Your task to perform on an android device: Go to wifi settings Image 0: 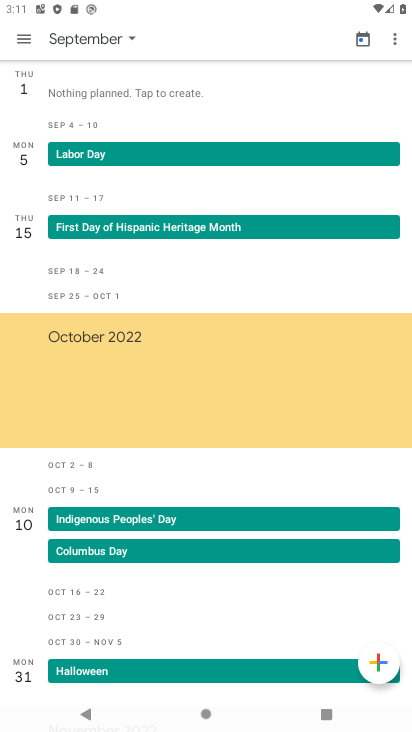
Step 0: press home button
Your task to perform on an android device: Go to wifi settings Image 1: 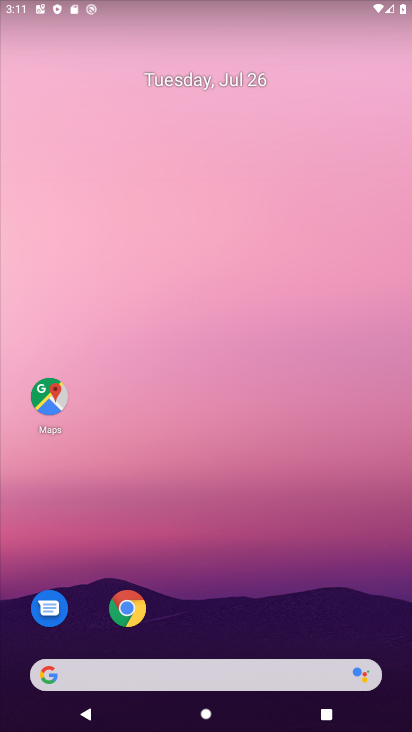
Step 1: drag from (284, 534) to (305, 24)
Your task to perform on an android device: Go to wifi settings Image 2: 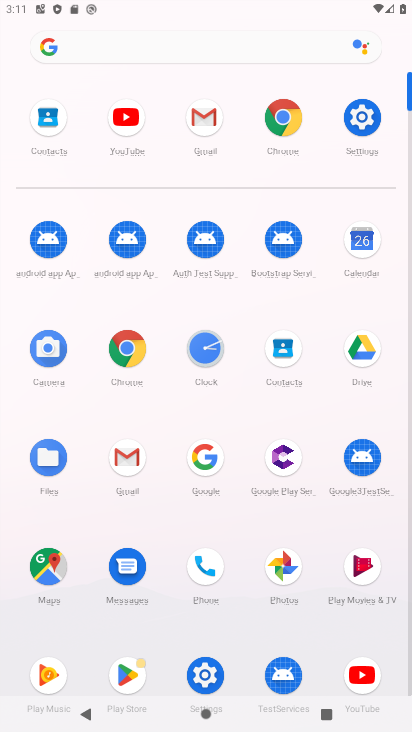
Step 2: click (207, 669)
Your task to perform on an android device: Go to wifi settings Image 3: 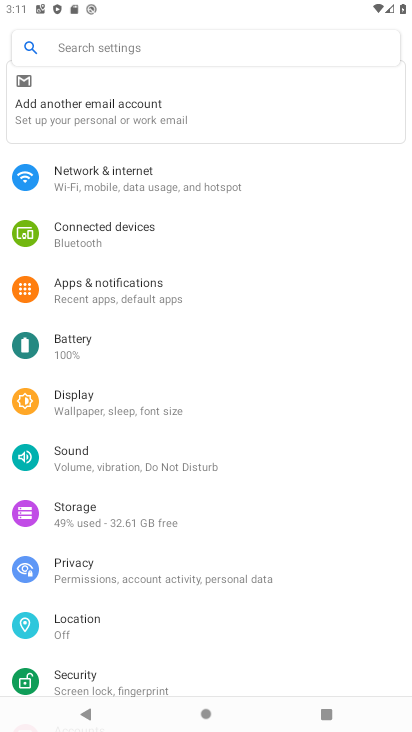
Step 3: click (156, 174)
Your task to perform on an android device: Go to wifi settings Image 4: 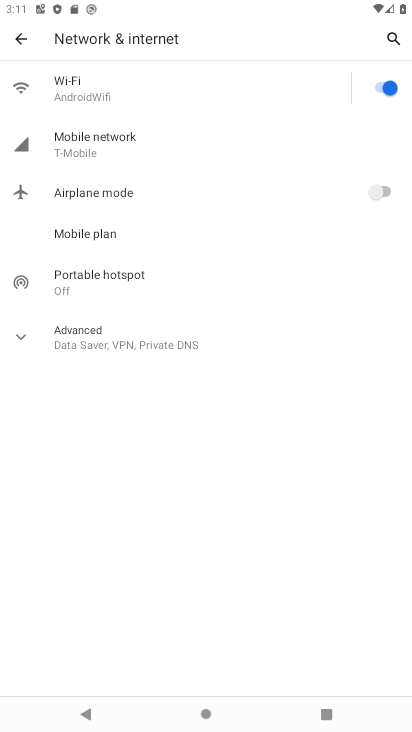
Step 4: task complete